Your task to perform on an android device: Show me productivity apps on the Play Store Image 0: 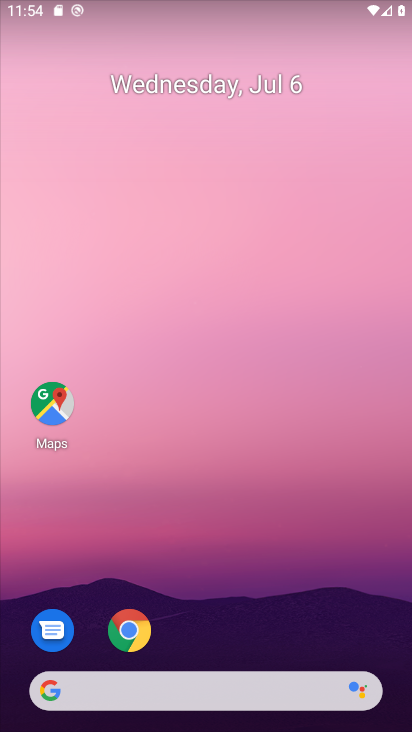
Step 0: drag from (218, 614) to (236, 239)
Your task to perform on an android device: Show me productivity apps on the Play Store Image 1: 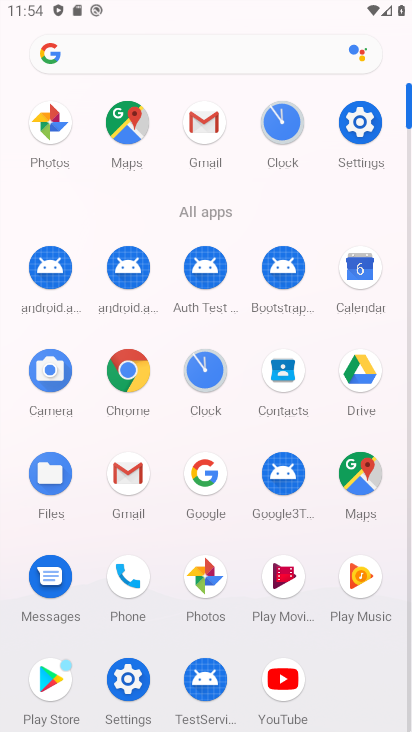
Step 1: click (52, 676)
Your task to perform on an android device: Show me productivity apps on the Play Store Image 2: 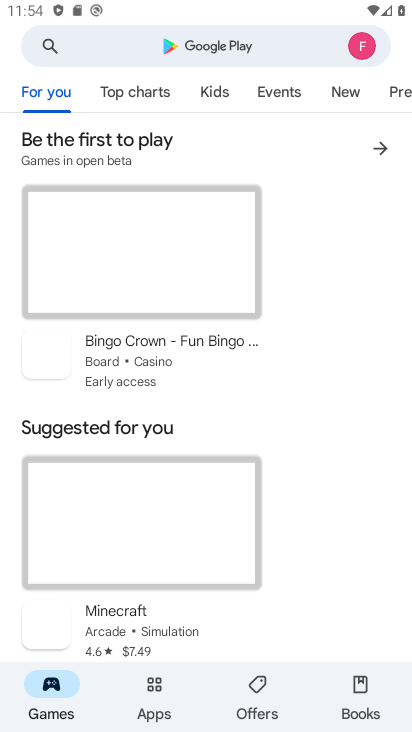
Step 2: click (167, 675)
Your task to perform on an android device: Show me productivity apps on the Play Store Image 3: 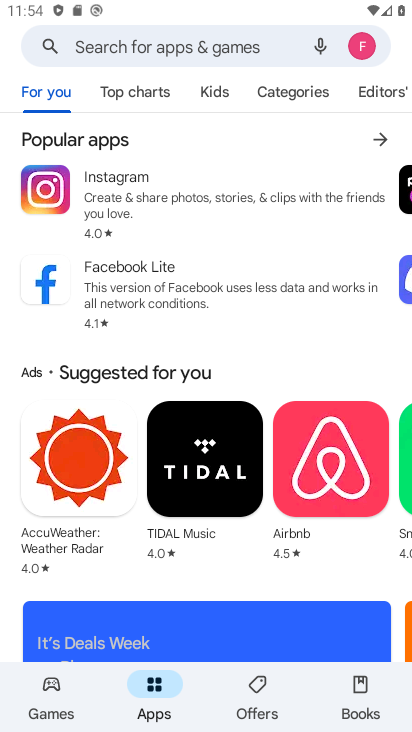
Step 3: task complete